Your task to perform on an android device: Open the web browser Image 0: 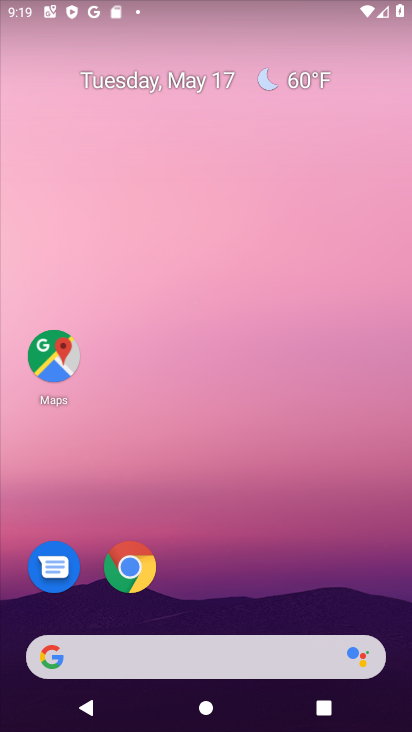
Step 0: drag from (353, 587) to (239, 49)
Your task to perform on an android device: Open the web browser Image 1: 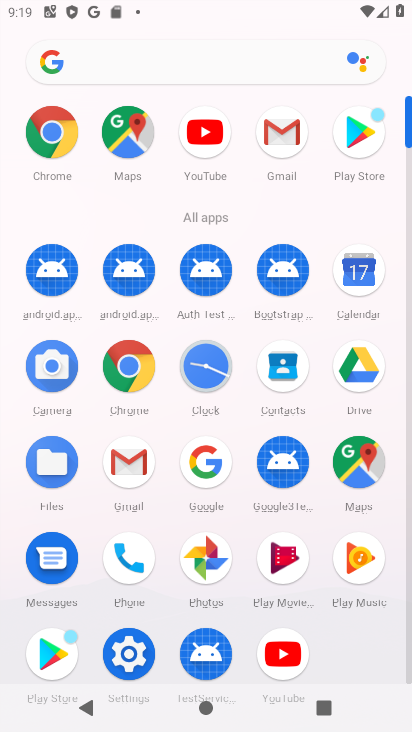
Step 1: click (127, 376)
Your task to perform on an android device: Open the web browser Image 2: 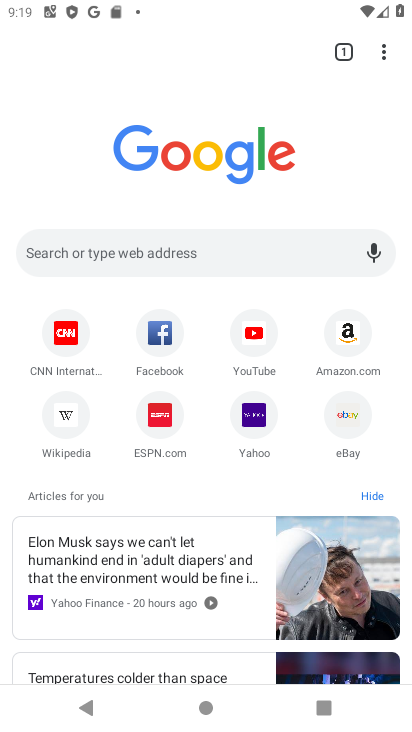
Step 2: task complete